Your task to perform on an android device: Search for a new hair product Image 0: 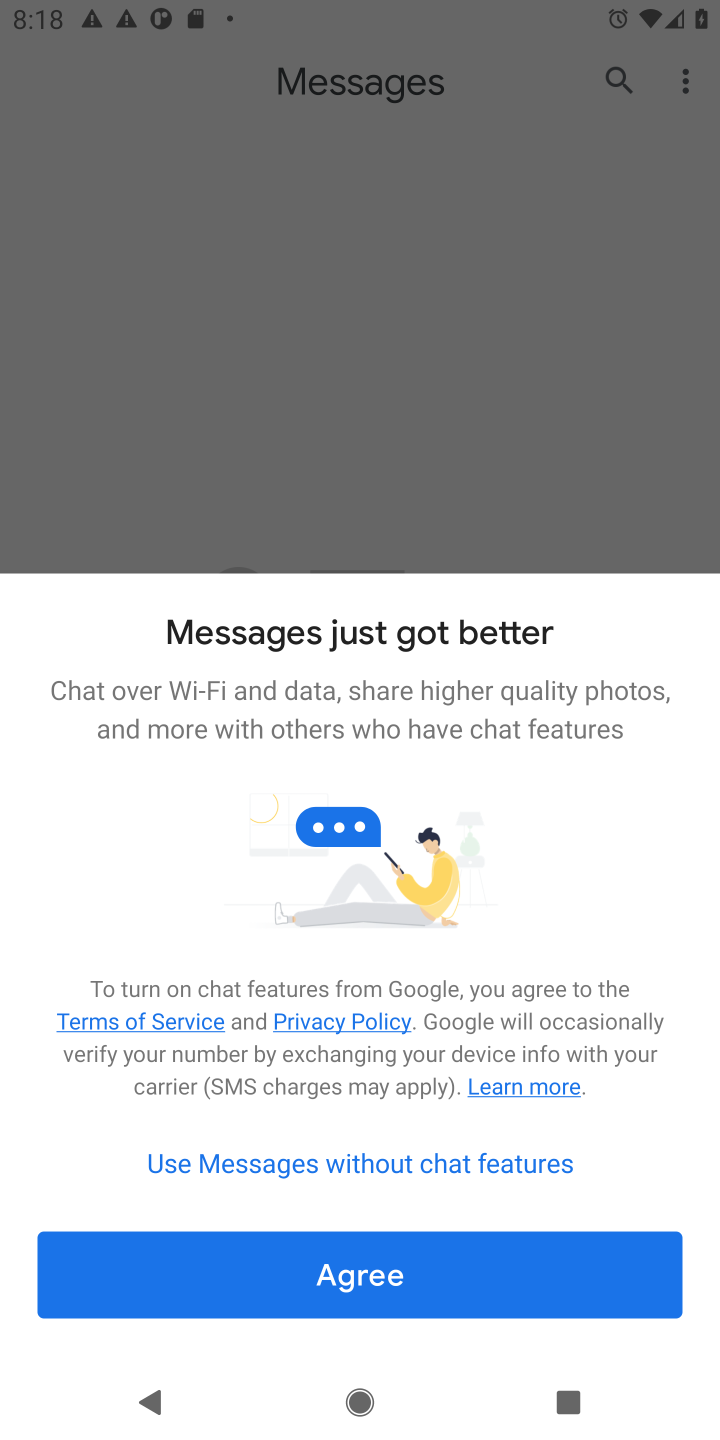
Step 0: press home button
Your task to perform on an android device: Search for a new hair product Image 1: 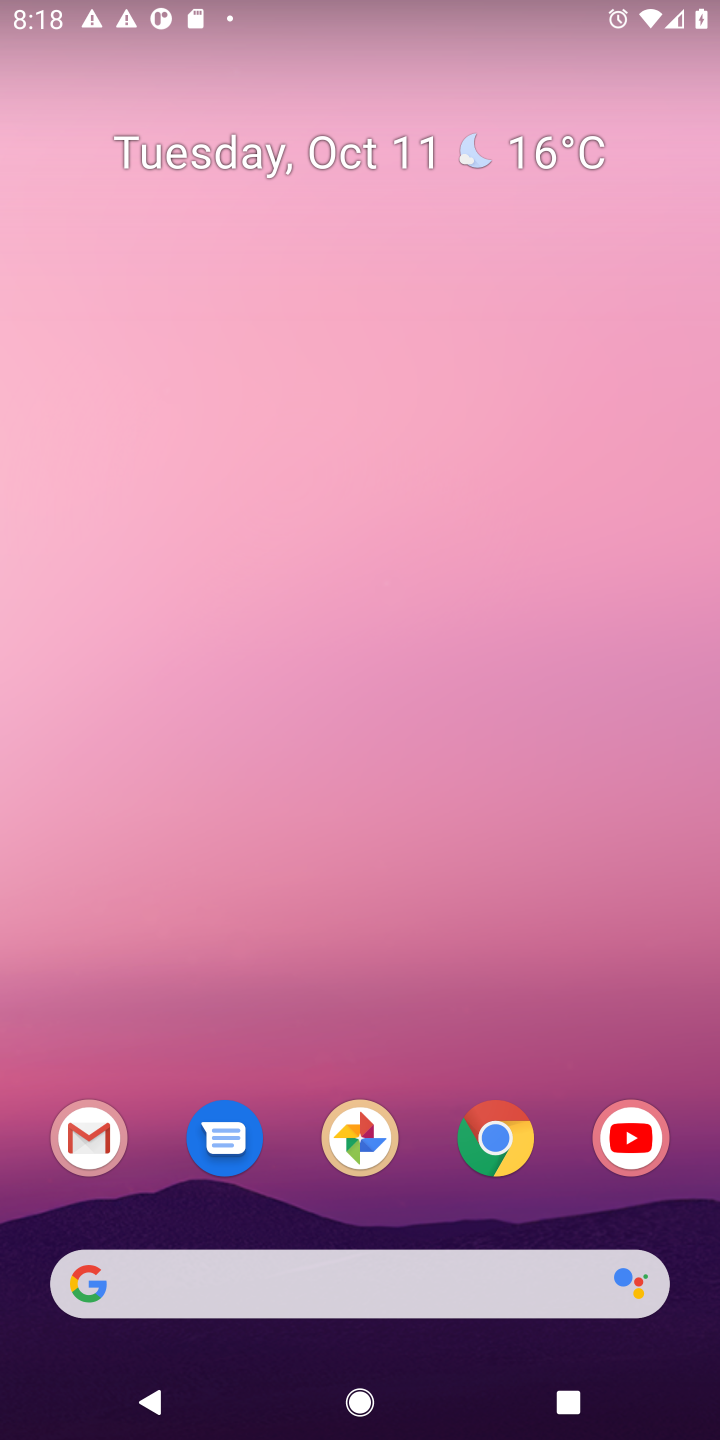
Step 1: click (271, 1266)
Your task to perform on an android device: Search for a new hair product Image 2: 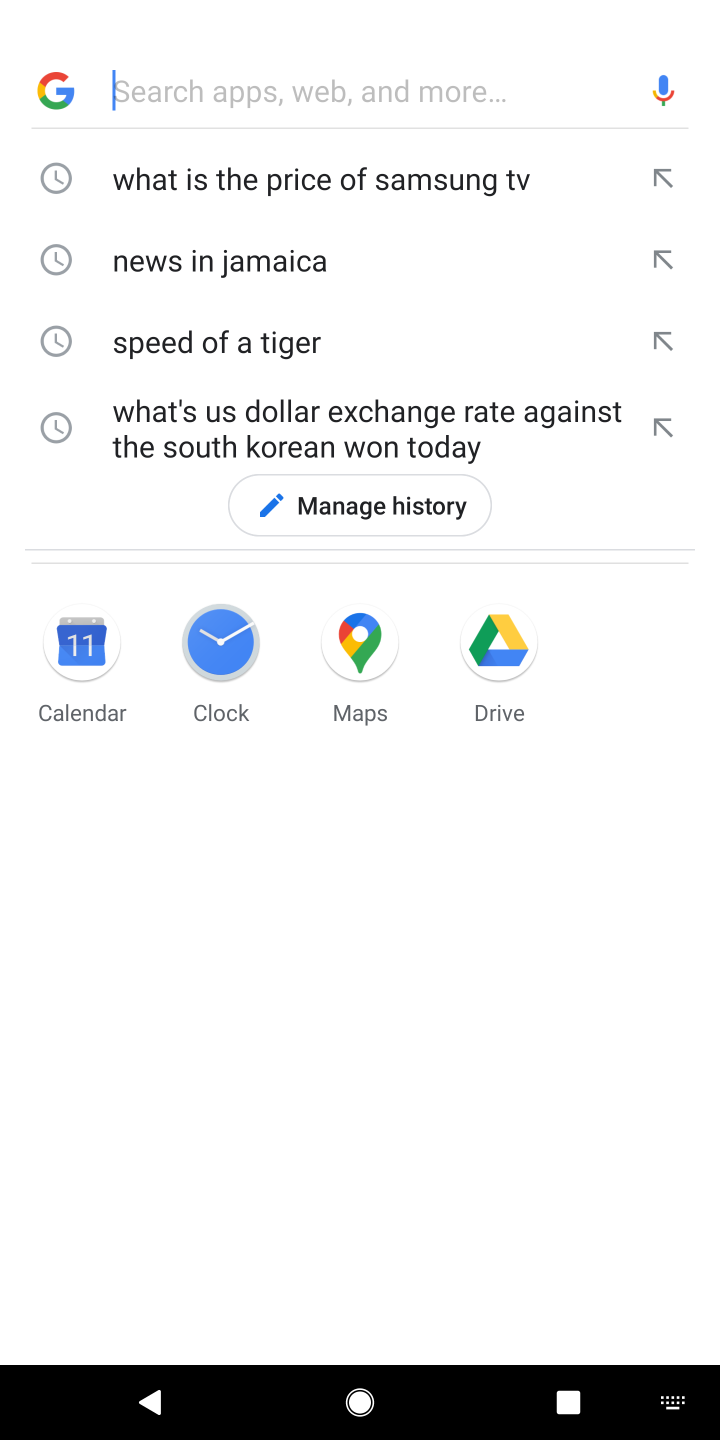
Step 2: type "new hair product"
Your task to perform on an android device: Search for a new hair product Image 3: 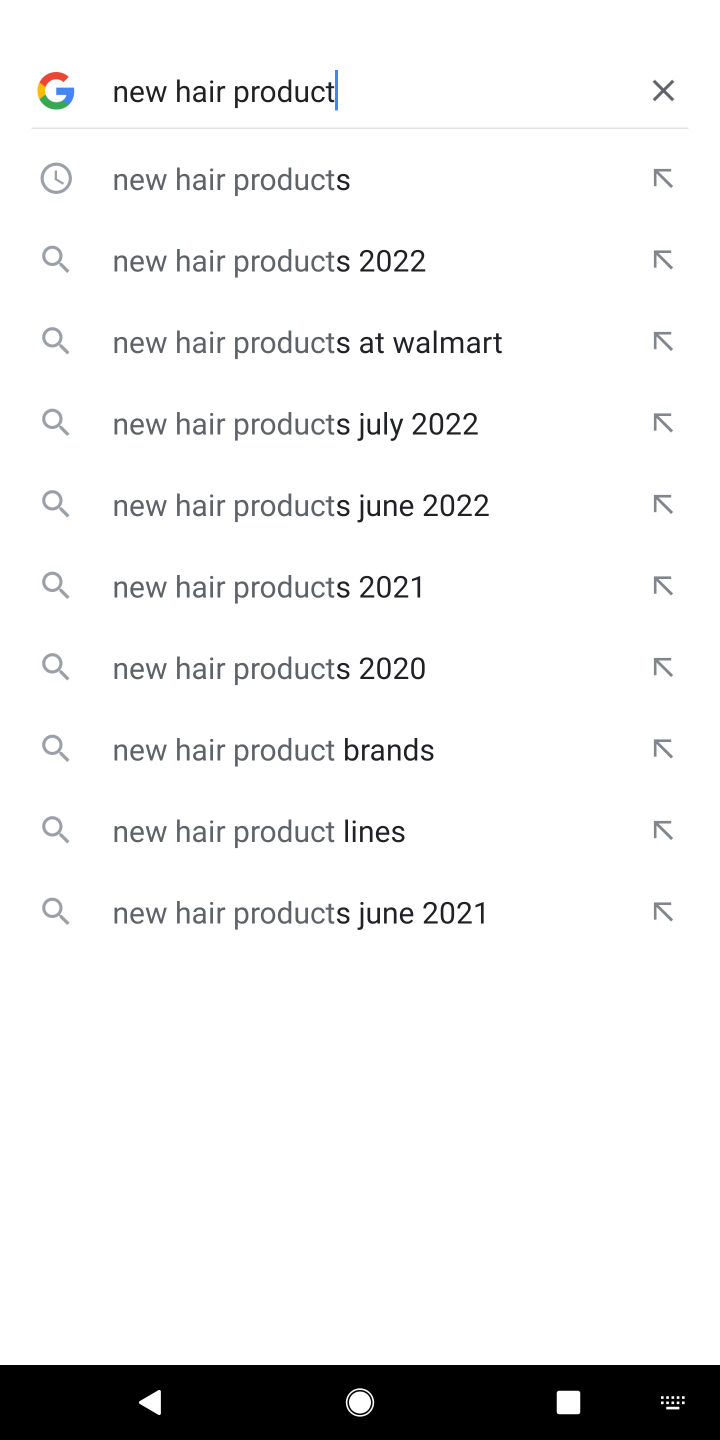
Step 3: click (280, 172)
Your task to perform on an android device: Search for a new hair product Image 4: 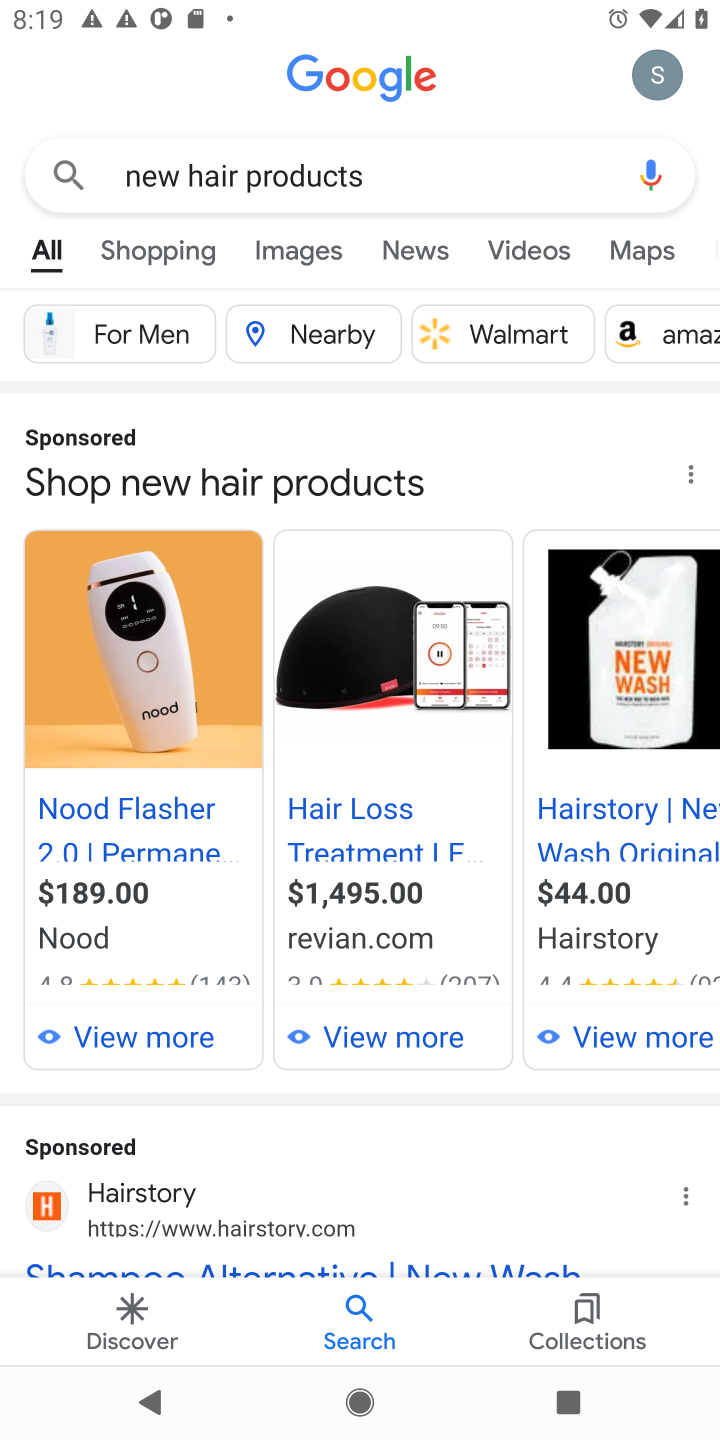
Step 4: drag from (301, 1131) to (244, 864)
Your task to perform on an android device: Search for a new hair product Image 5: 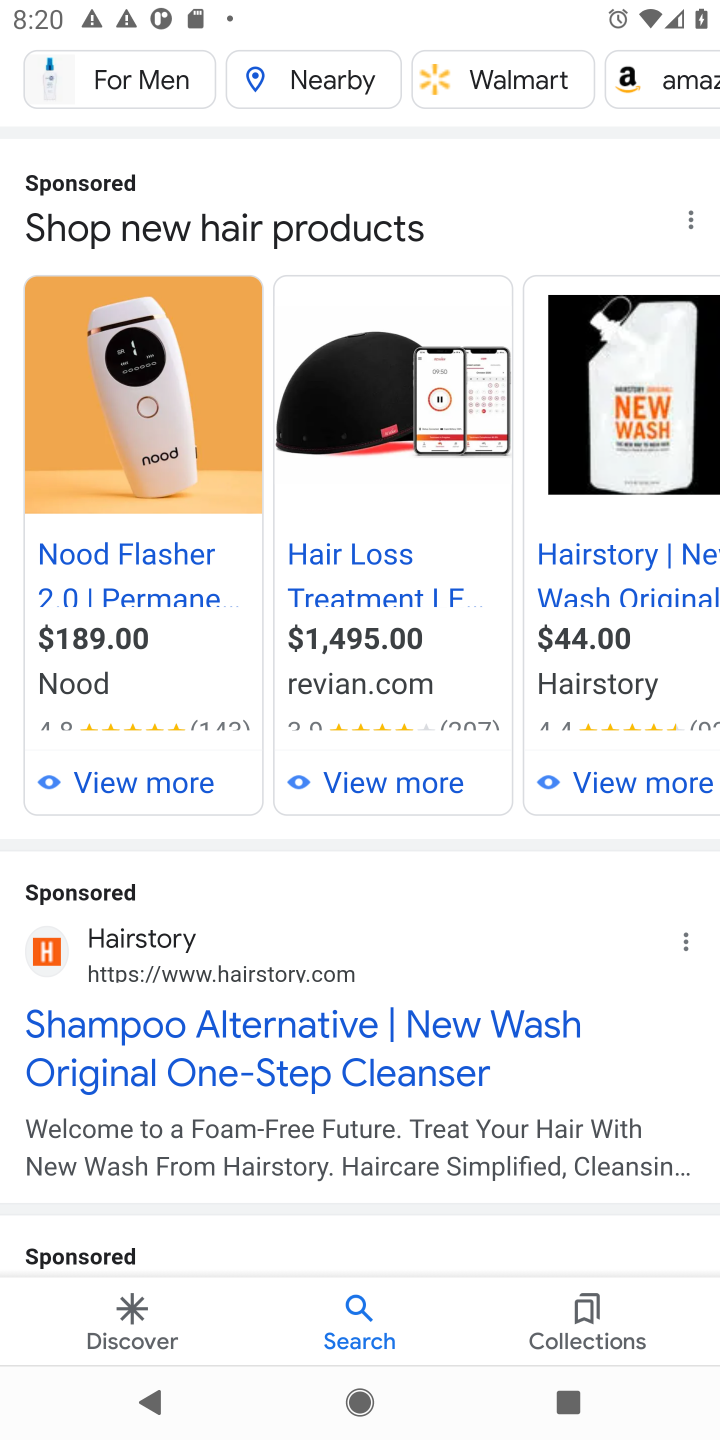
Step 5: click (334, 1029)
Your task to perform on an android device: Search for a new hair product Image 6: 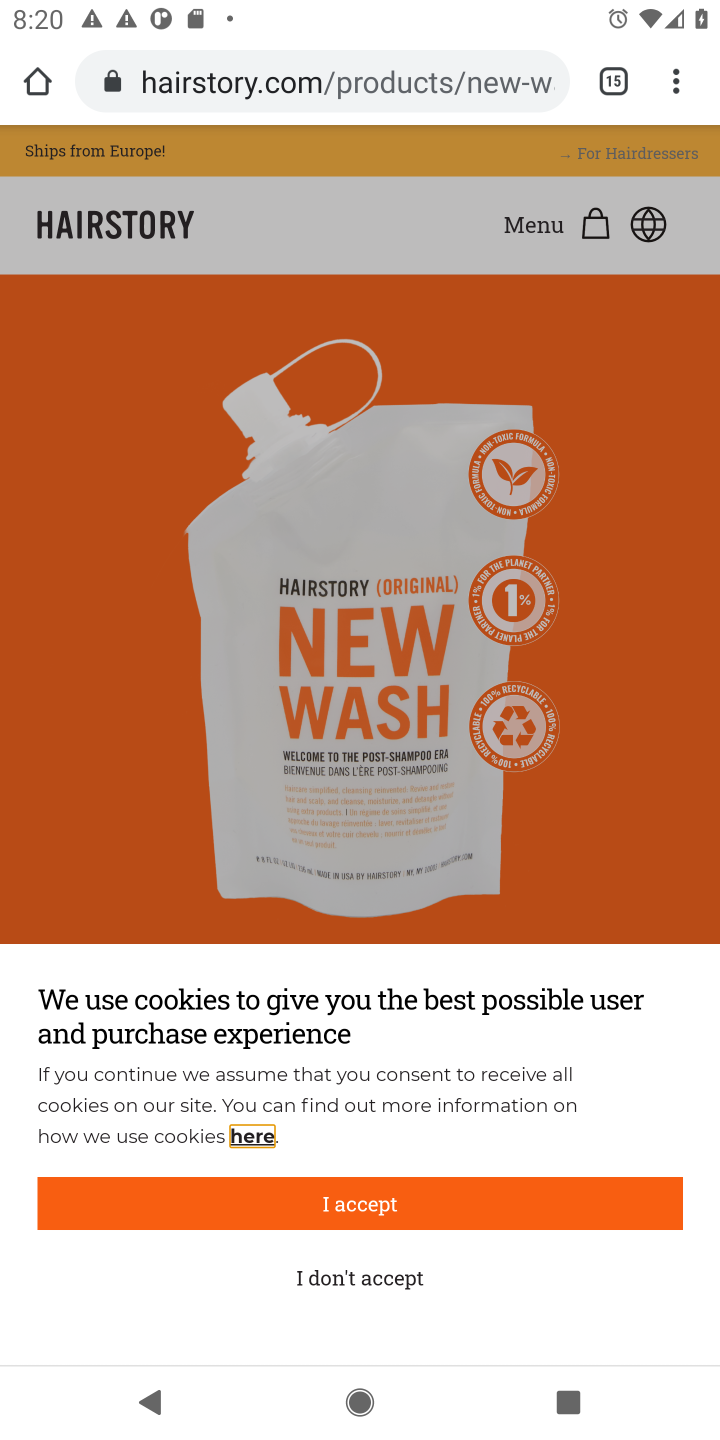
Step 6: click (378, 1206)
Your task to perform on an android device: Search for a new hair product Image 7: 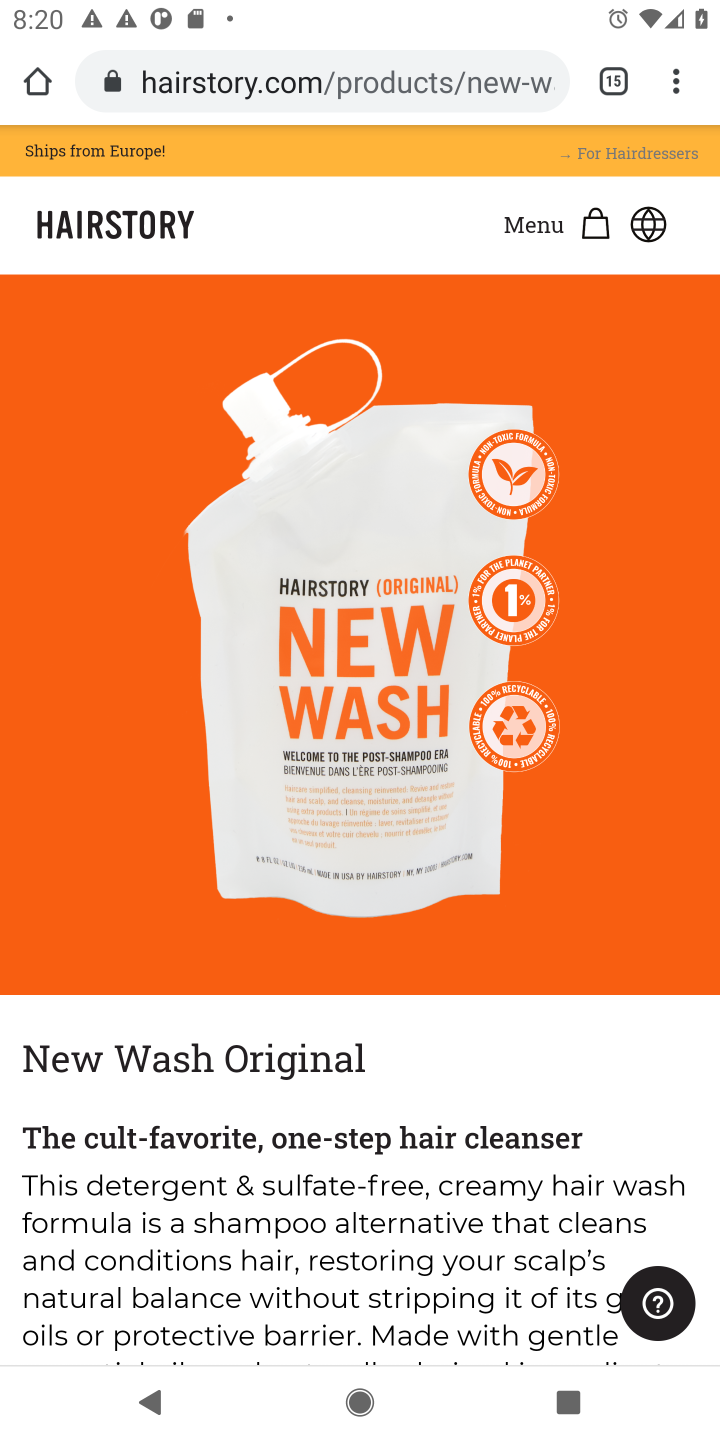
Step 7: task complete